Your task to perform on an android device: turn on sleep mode Image 0: 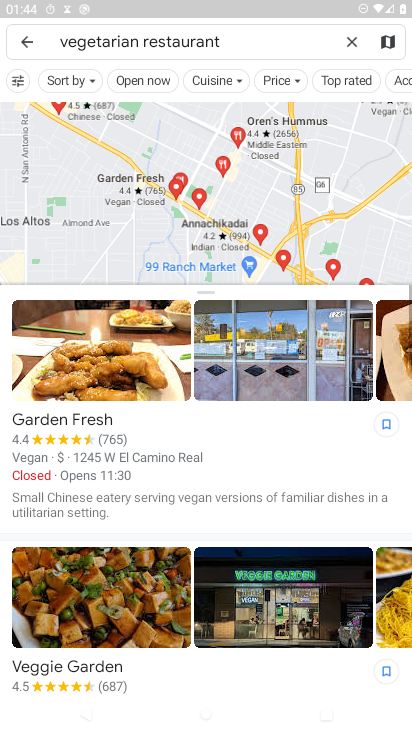
Step 0: press home button
Your task to perform on an android device: turn on sleep mode Image 1: 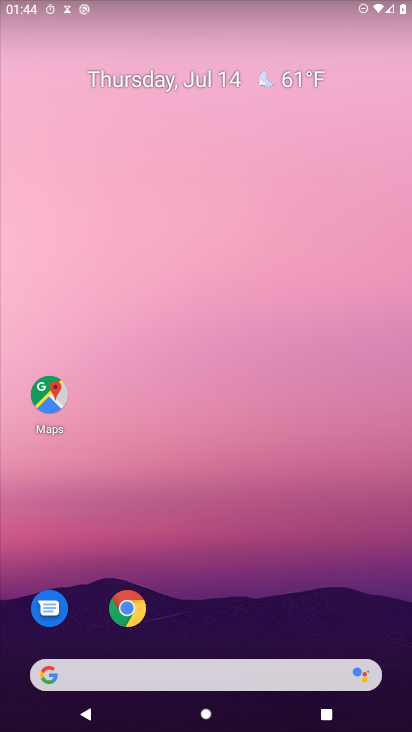
Step 1: drag from (227, 622) to (288, 57)
Your task to perform on an android device: turn on sleep mode Image 2: 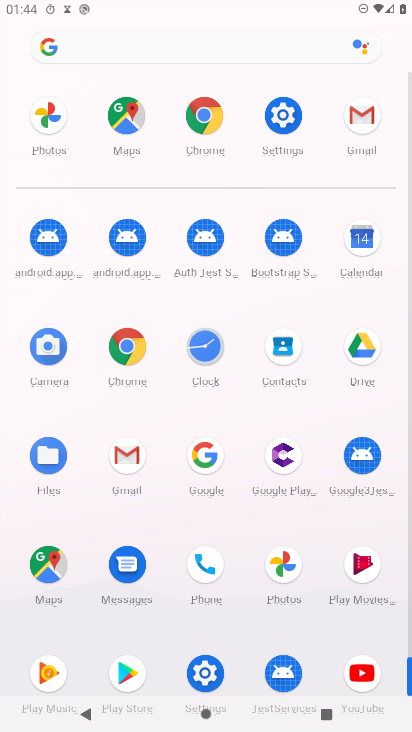
Step 2: click (281, 105)
Your task to perform on an android device: turn on sleep mode Image 3: 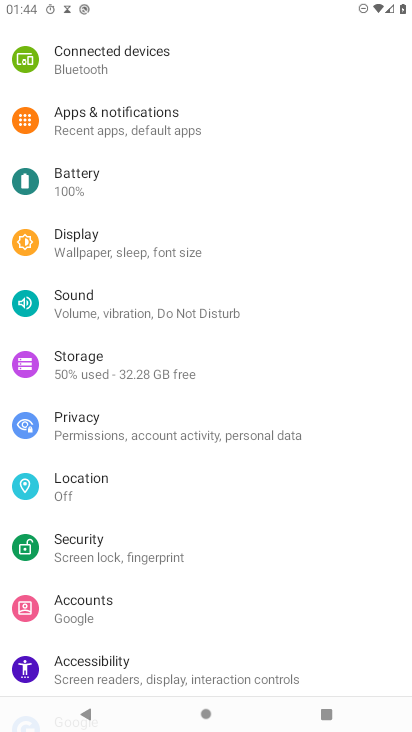
Step 3: click (79, 247)
Your task to perform on an android device: turn on sleep mode Image 4: 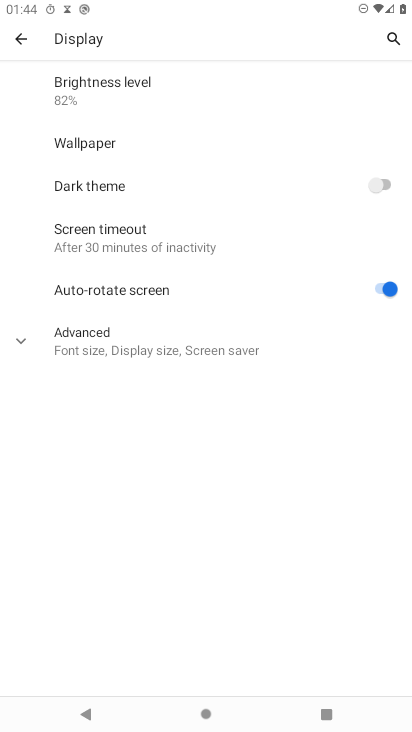
Step 4: click (12, 334)
Your task to perform on an android device: turn on sleep mode Image 5: 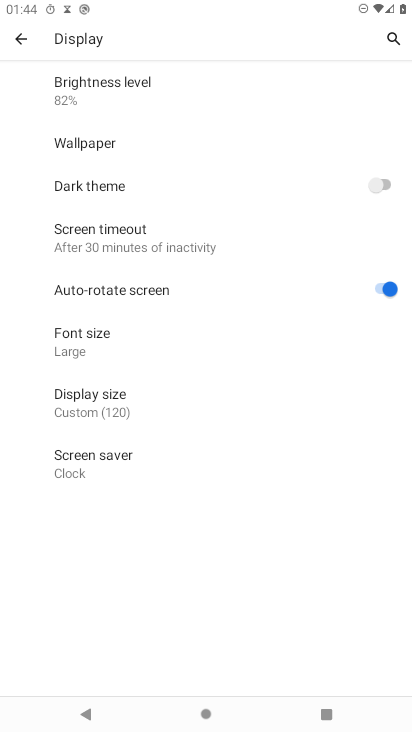
Step 5: task complete